Your task to perform on an android device: Open Android settings Image 0: 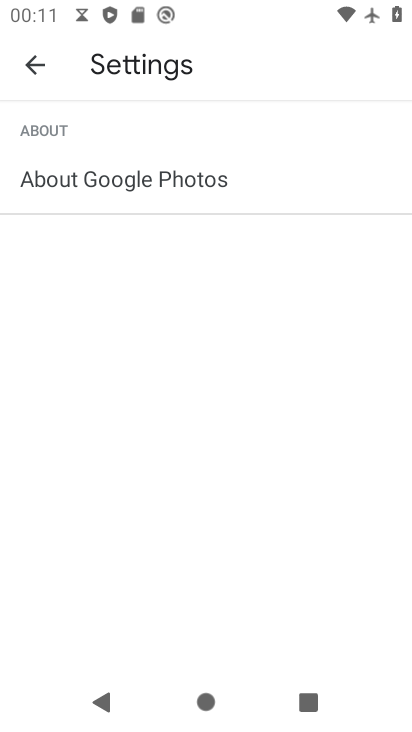
Step 0: press home button
Your task to perform on an android device: Open Android settings Image 1: 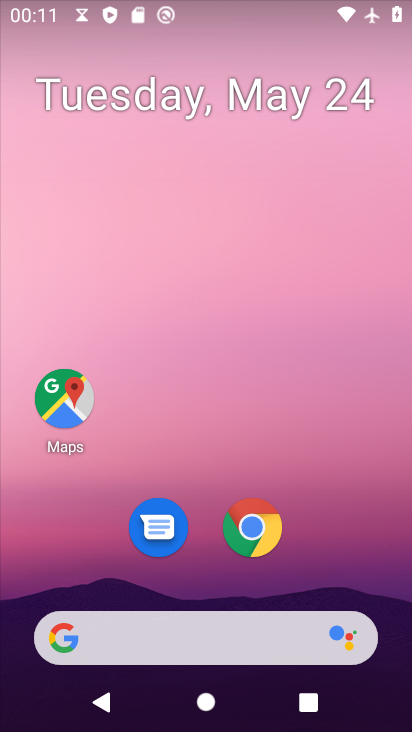
Step 1: drag from (216, 655) to (299, 163)
Your task to perform on an android device: Open Android settings Image 2: 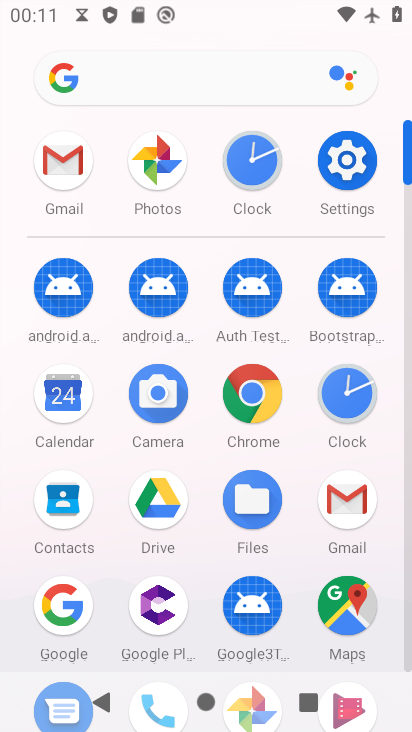
Step 2: click (345, 166)
Your task to perform on an android device: Open Android settings Image 3: 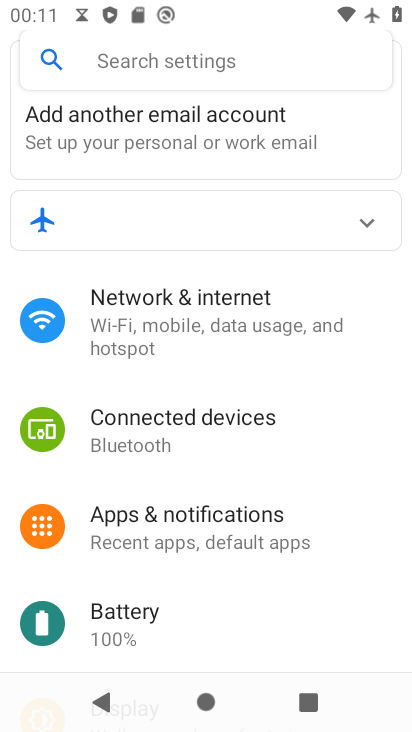
Step 3: task complete